Your task to perform on an android device: turn smart compose on in the gmail app Image 0: 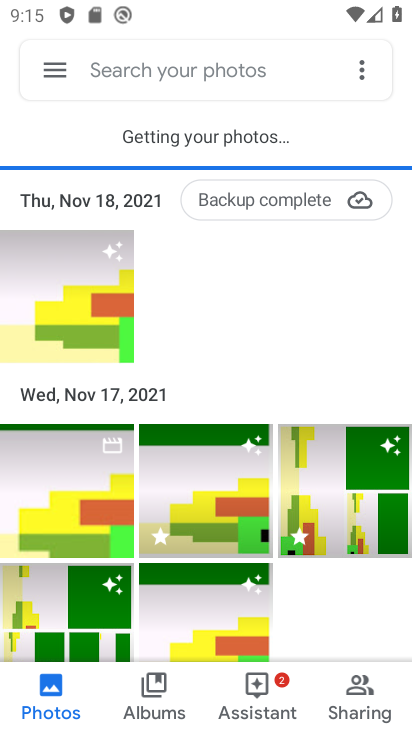
Step 0: press home button
Your task to perform on an android device: turn smart compose on in the gmail app Image 1: 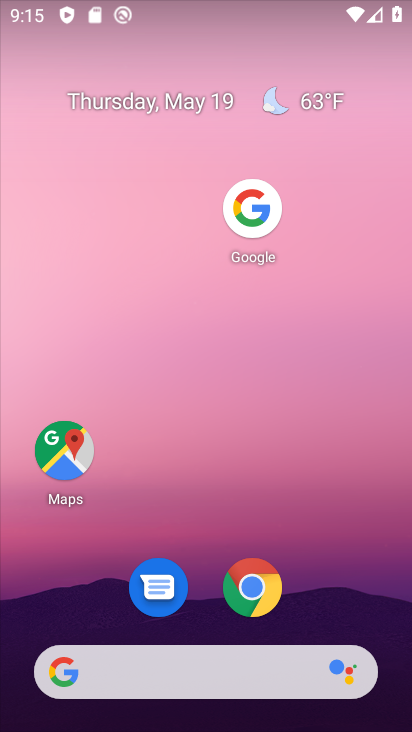
Step 1: drag from (212, 624) to (131, 32)
Your task to perform on an android device: turn smart compose on in the gmail app Image 2: 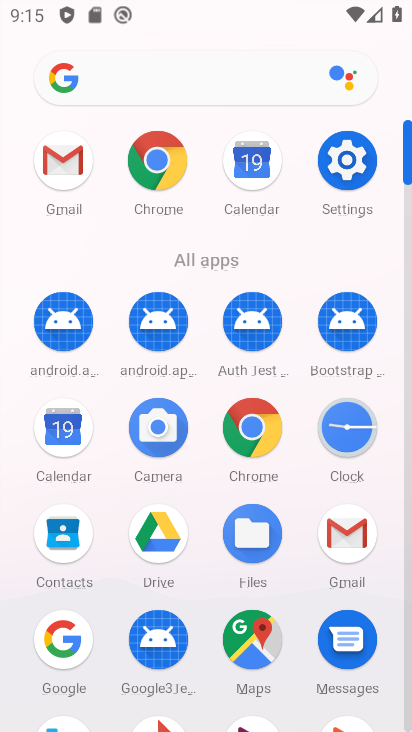
Step 2: click (342, 545)
Your task to perform on an android device: turn smart compose on in the gmail app Image 3: 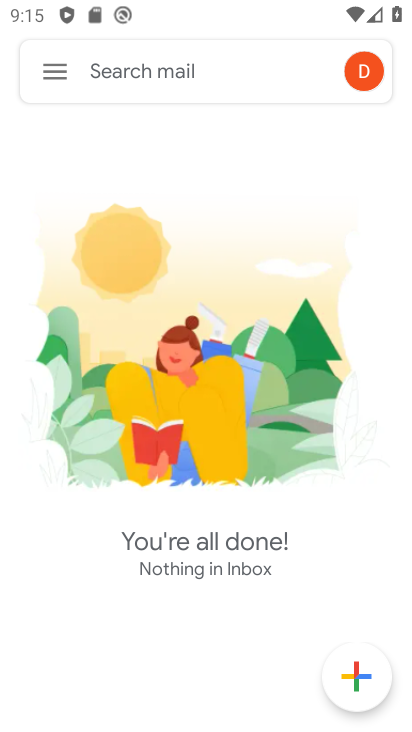
Step 3: click (55, 57)
Your task to perform on an android device: turn smart compose on in the gmail app Image 4: 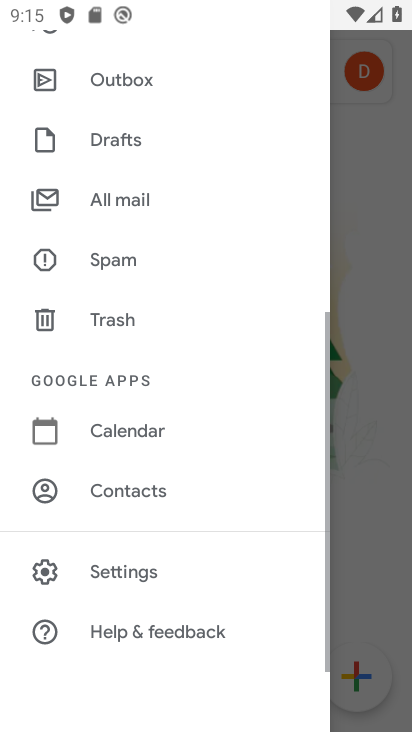
Step 4: click (146, 558)
Your task to perform on an android device: turn smart compose on in the gmail app Image 5: 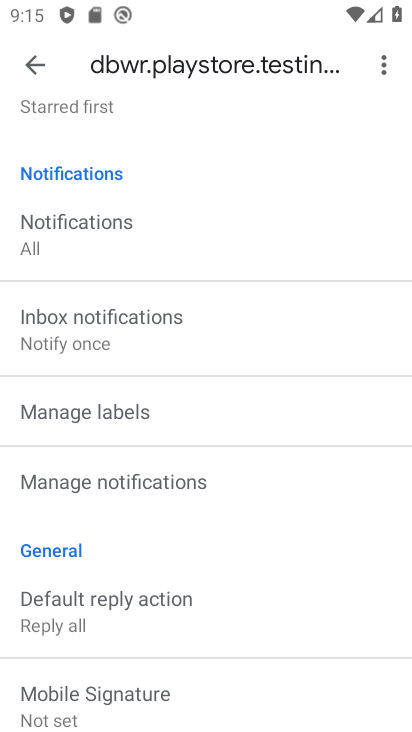
Step 5: task complete